Your task to perform on an android device: Open Chrome and go to settings Image 0: 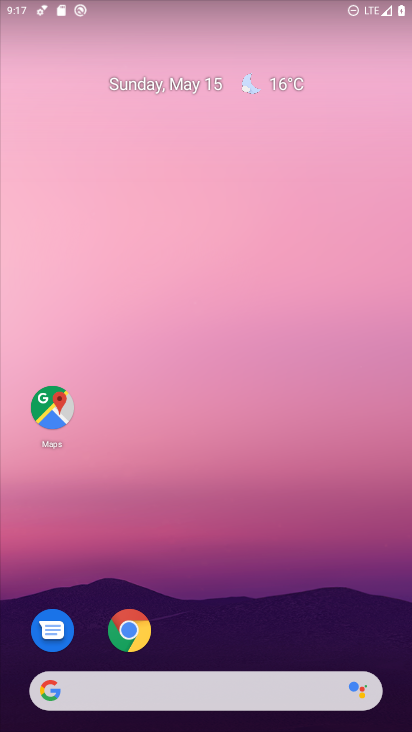
Step 0: drag from (187, 647) to (200, 218)
Your task to perform on an android device: Open Chrome and go to settings Image 1: 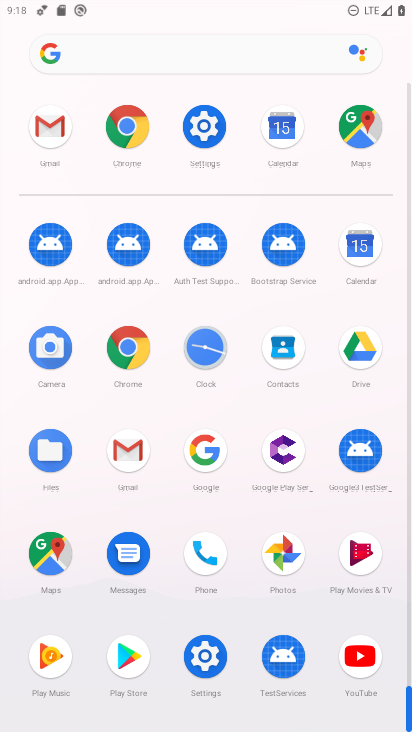
Step 1: click (212, 118)
Your task to perform on an android device: Open Chrome and go to settings Image 2: 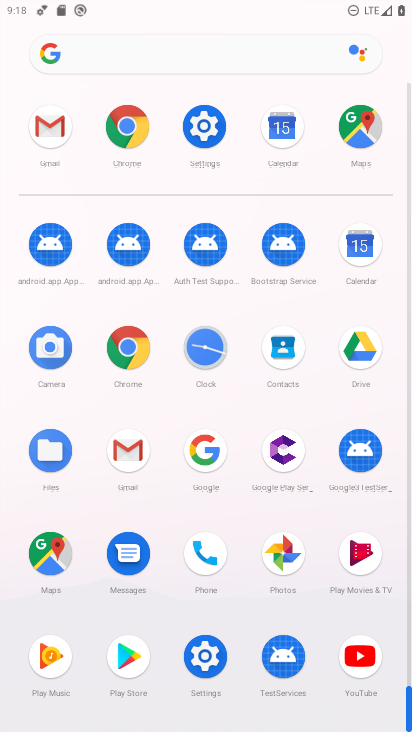
Step 2: click (212, 118)
Your task to perform on an android device: Open Chrome and go to settings Image 3: 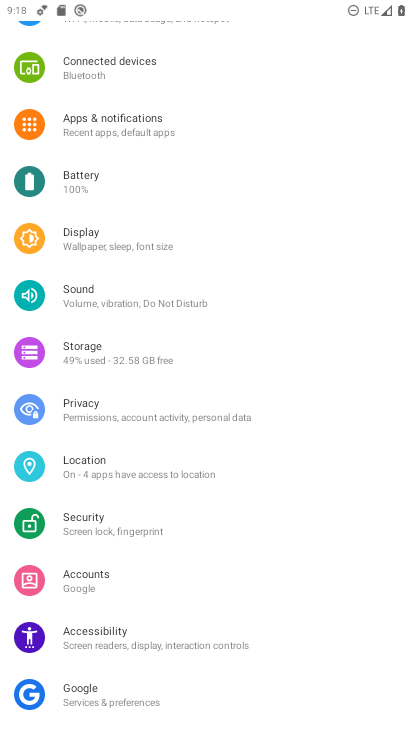
Step 3: press home button
Your task to perform on an android device: Open Chrome and go to settings Image 4: 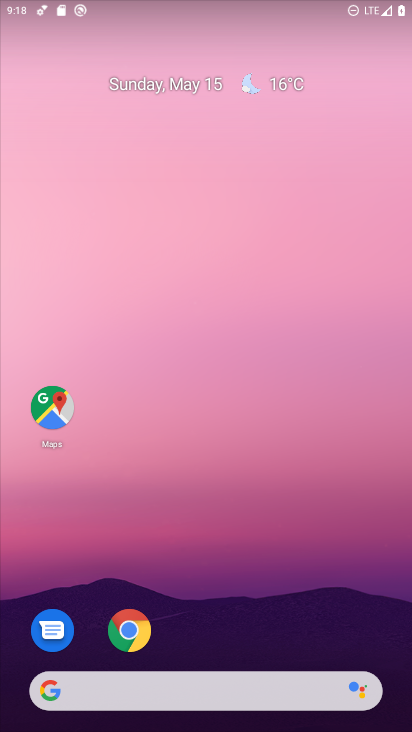
Step 4: drag from (154, 509) to (321, 158)
Your task to perform on an android device: Open Chrome and go to settings Image 5: 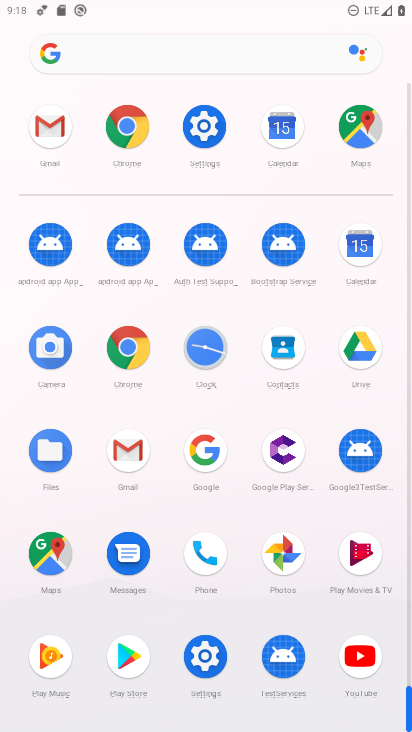
Step 5: click (130, 122)
Your task to perform on an android device: Open Chrome and go to settings Image 6: 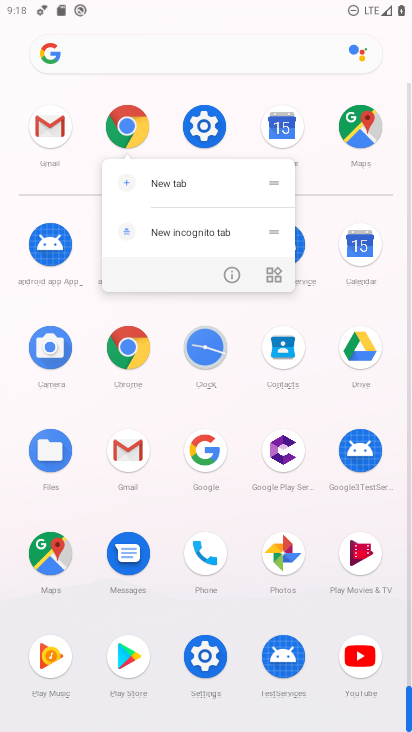
Step 6: click (228, 278)
Your task to perform on an android device: Open Chrome and go to settings Image 7: 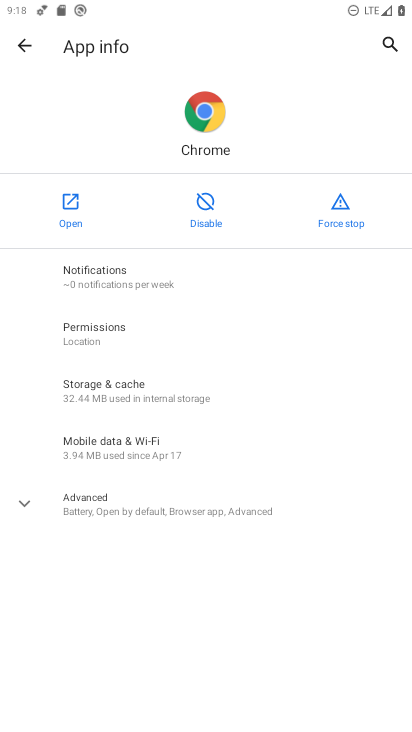
Step 7: click (92, 257)
Your task to perform on an android device: Open Chrome and go to settings Image 8: 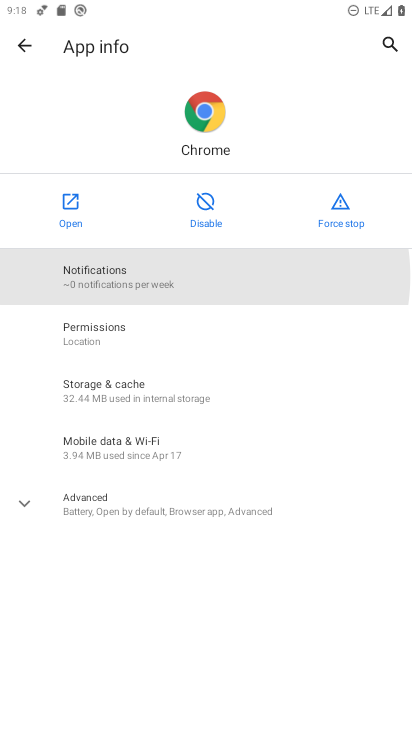
Step 8: click (65, 218)
Your task to perform on an android device: Open Chrome and go to settings Image 9: 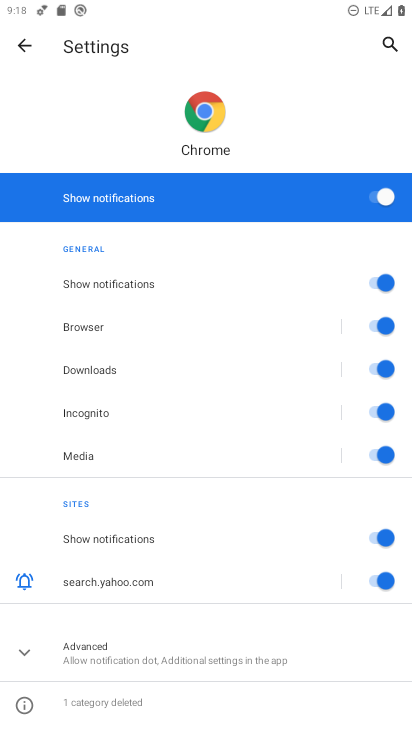
Step 9: click (16, 31)
Your task to perform on an android device: Open Chrome and go to settings Image 10: 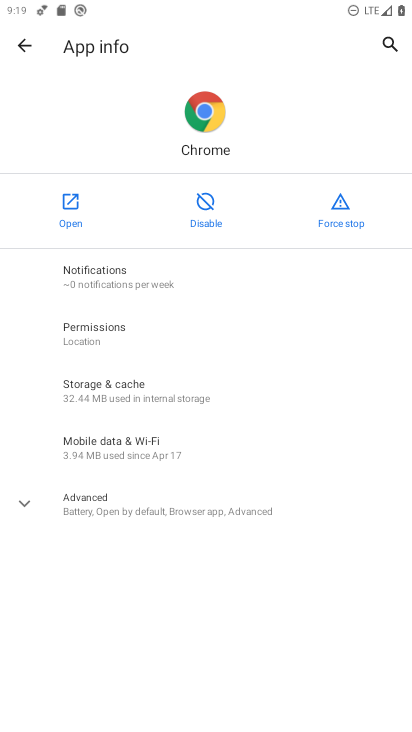
Step 10: click (77, 190)
Your task to perform on an android device: Open Chrome and go to settings Image 11: 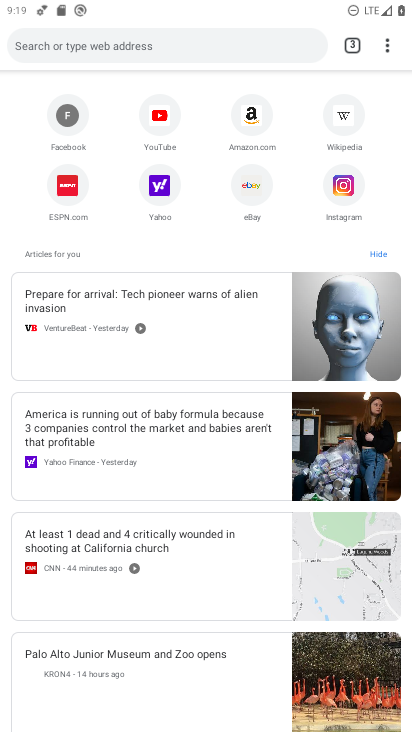
Step 11: click (382, 49)
Your task to perform on an android device: Open Chrome and go to settings Image 12: 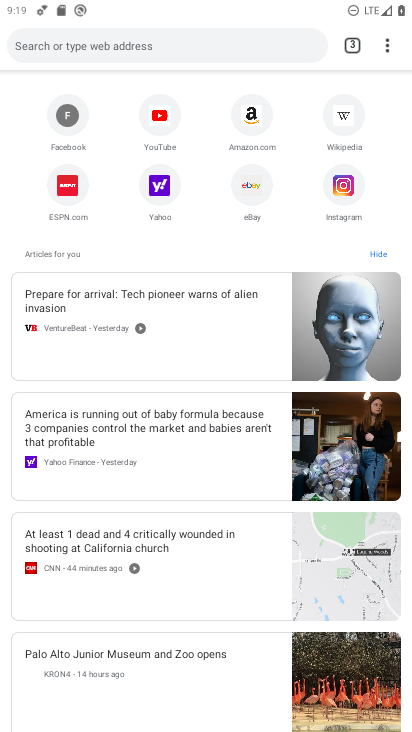
Step 12: click (390, 53)
Your task to perform on an android device: Open Chrome and go to settings Image 13: 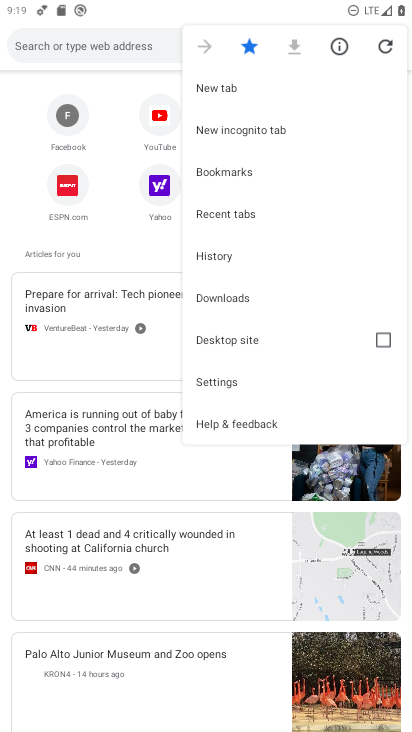
Step 13: click (243, 374)
Your task to perform on an android device: Open Chrome and go to settings Image 14: 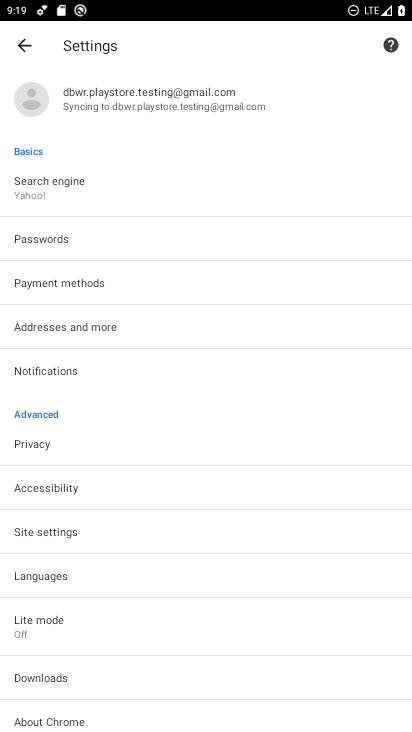
Step 14: task complete